Your task to perform on an android device: add a contact Image 0: 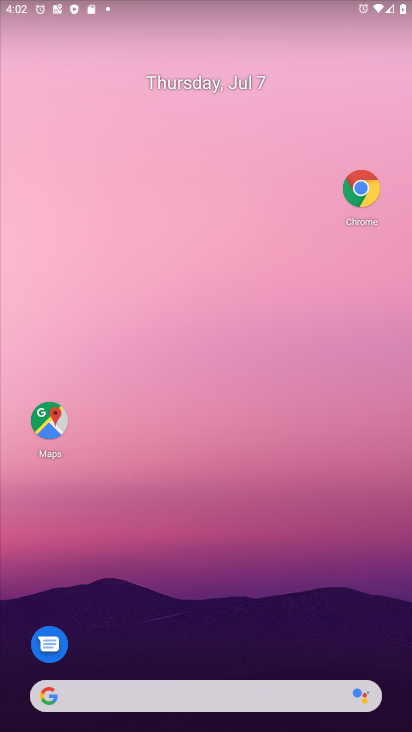
Step 0: drag from (245, 627) to (249, 91)
Your task to perform on an android device: add a contact Image 1: 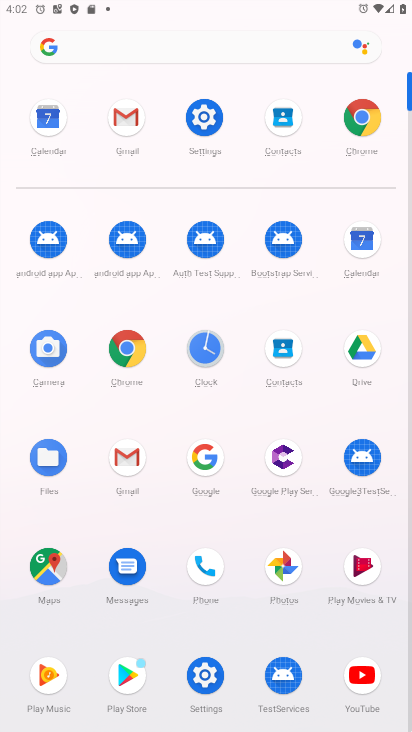
Step 1: click (293, 369)
Your task to perform on an android device: add a contact Image 2: 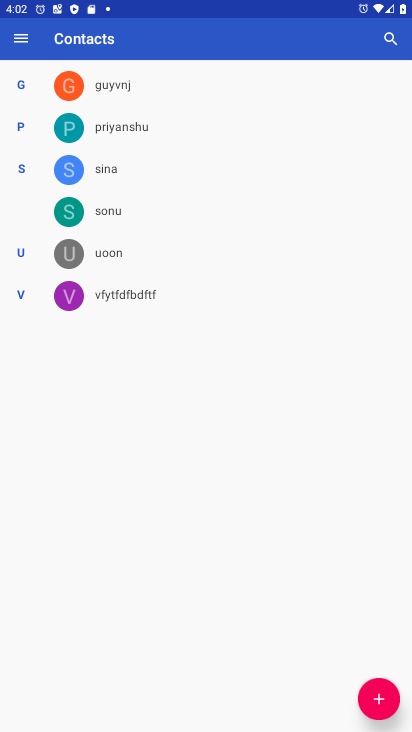
Step 2: click (383, 714)
Your task to perform on an android device: add a contact Image 3: 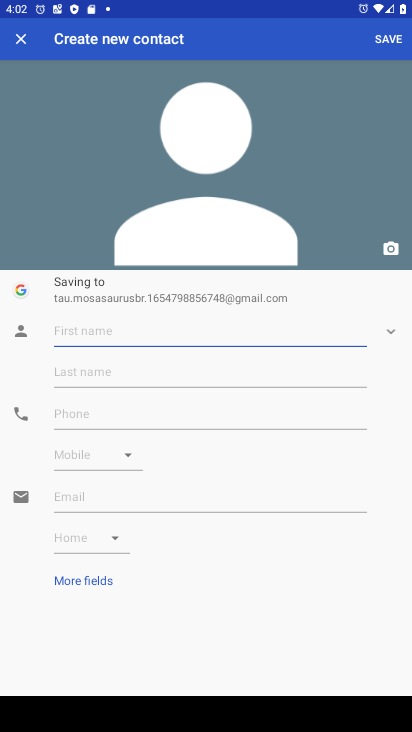
Step 3: type "priya"
Your task to perform on an android device: add a contact Image 4: 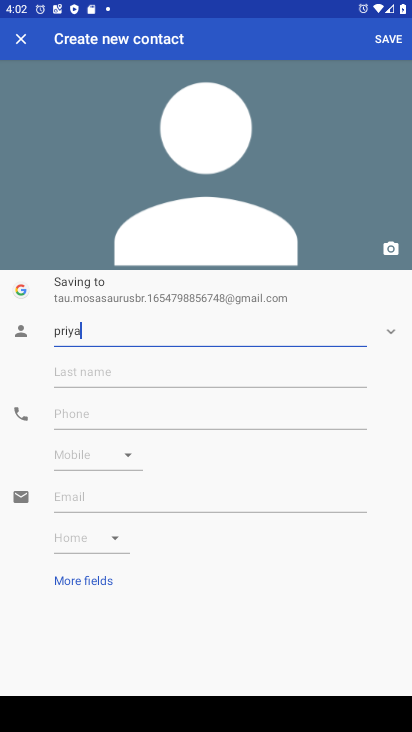
Step 4: click (97, 408)
Your task to perform on an android device: add a contact Image 5: 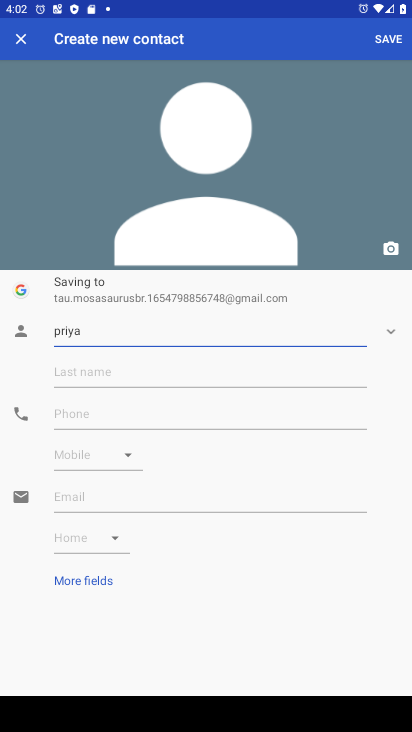
Step 5: click (97, 408)
Your task to perform on an android device: add a contact Image 6: 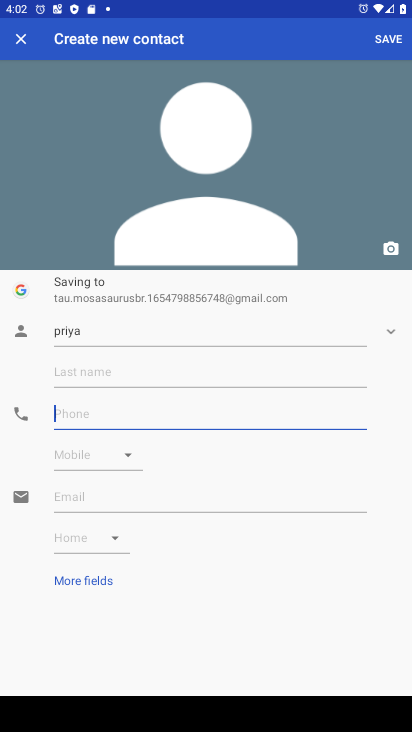
Step 6: click (97, 408)
Your task to perform on an android device: add a contact Image 7: 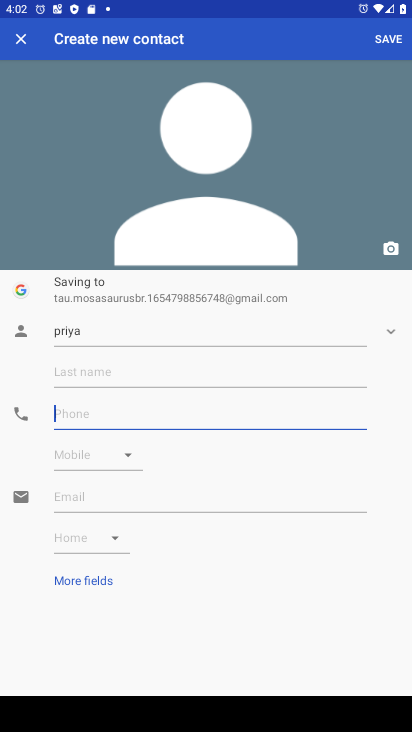
Step 7: click (97, 408)
Your task to perform on an android device: add a contact Image 8: 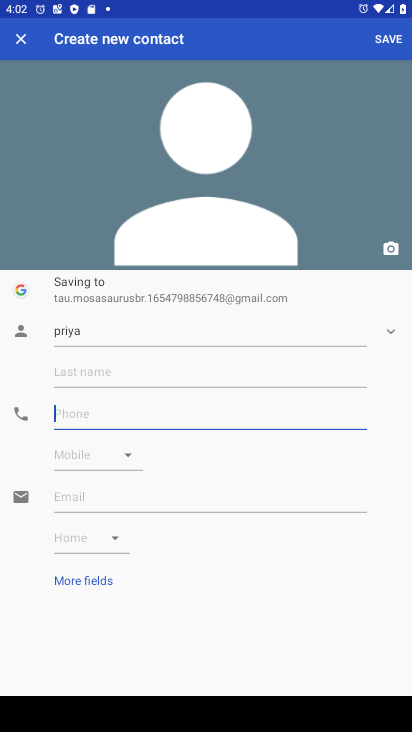
Step 8: click (97, 408)
Your task to perform on an android device: add a contact Image 9: 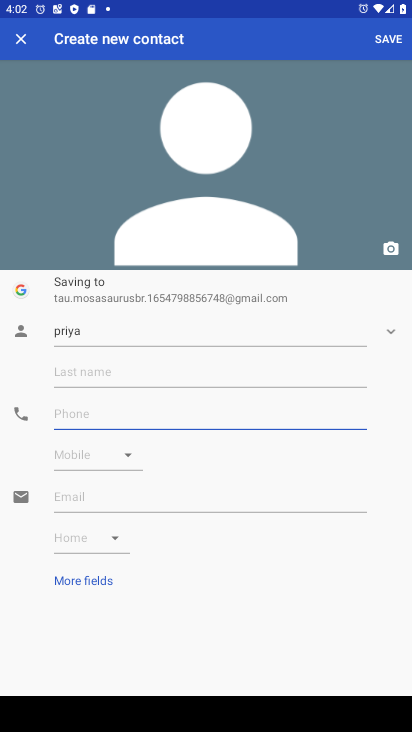
Step 9: click (97, 408)
Your task to perform on an android device: add a contact Image 10: 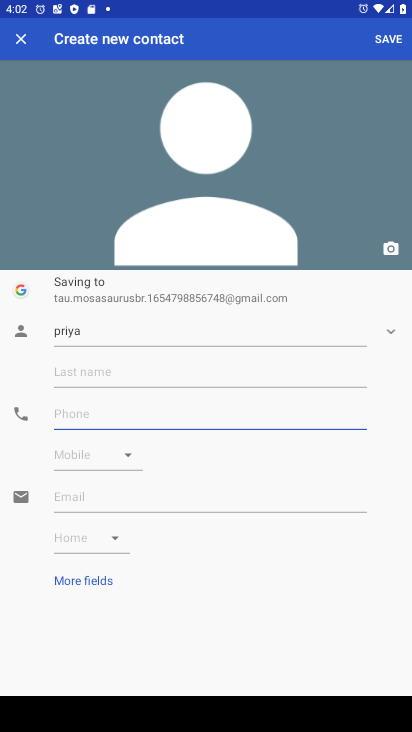
Step 10: click (97, 408)
Your task to perform on an android device: add a contact Image 11: 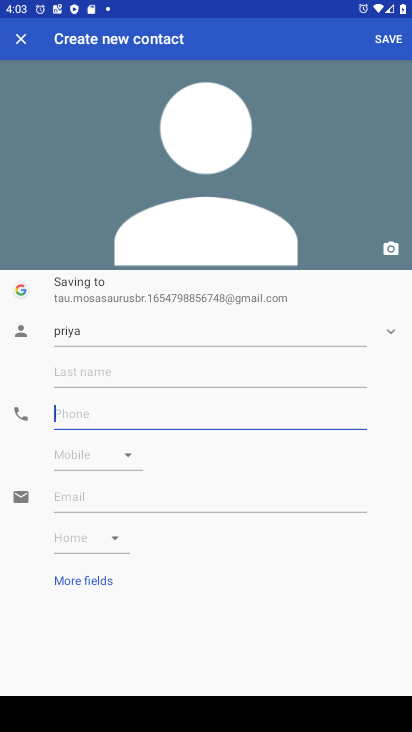
Step 11: type "18788772'''''''''''"
Your task to perform on an android device: add a contact Image 12: 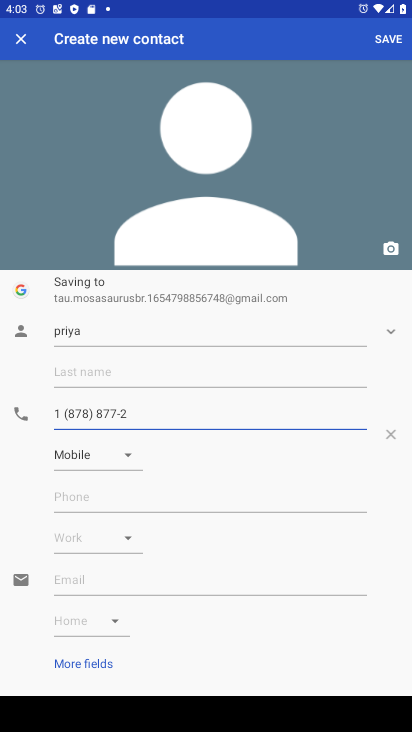
Step 12: click (387, 45)
Your task to perform on an android device: add a contact Image 13: 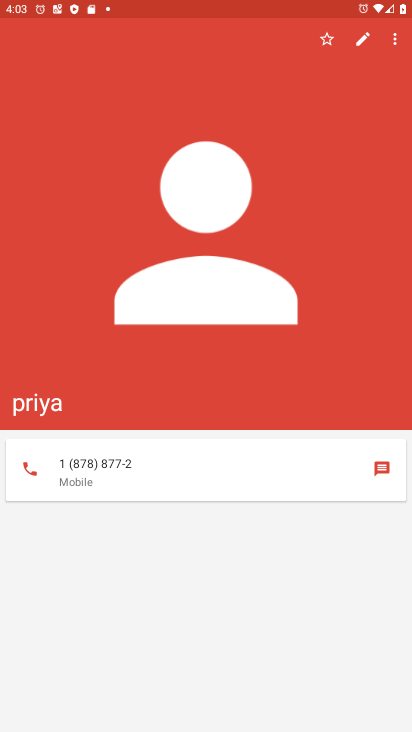
Step 13: task complete